Your task to perform on an android device: turn on showing notifications on the lock screen Image 0: 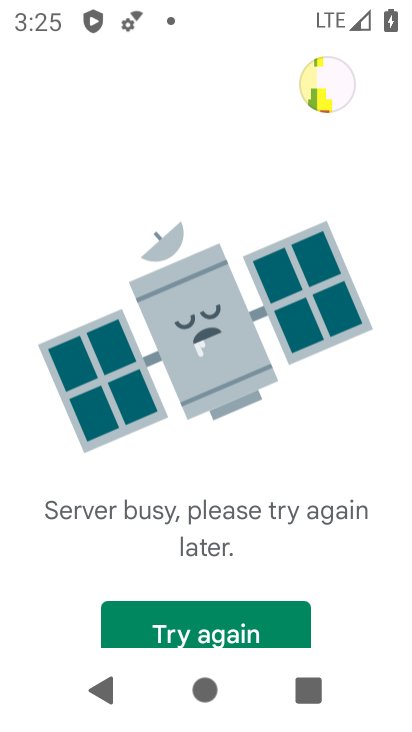
Step 0: press back button
Your task to perform on an android device: turn on showing notifications on the lock screen Image 1: 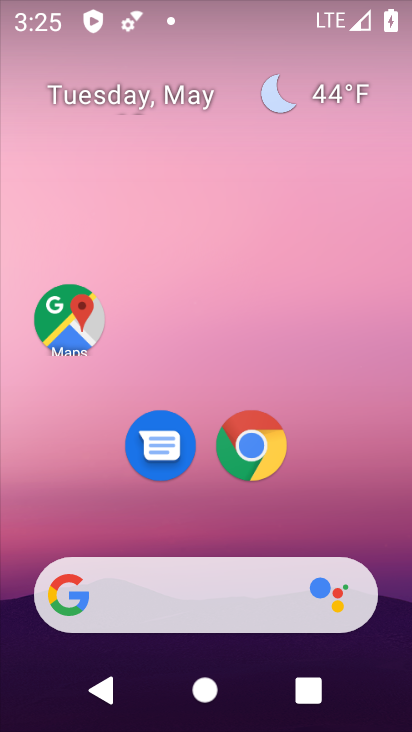
Step 1: drag from (183, 534) to (307, 79)
Your task to perform on an android device: turn on showing notifications on the lock screen Image 2: 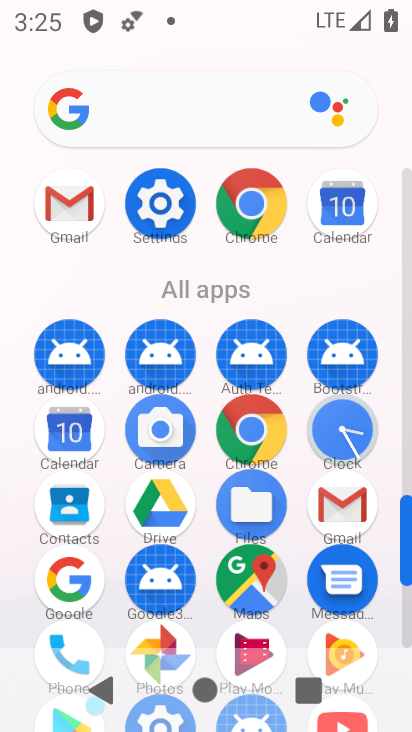
Step 2: click (169, 221)
Your task to perform on an android device: turn on showing notifications on the lock screen Image 3: 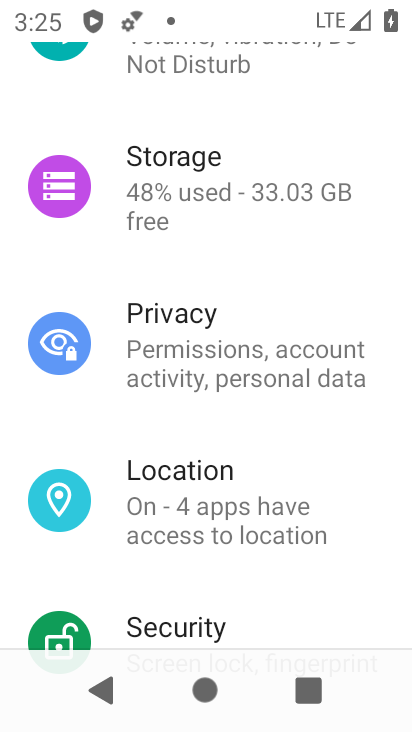
Step 3: drag from (275, 224) to (212, 729)
Your task to perform on an android device: turn on showing notifications on the lock screen Image 4: 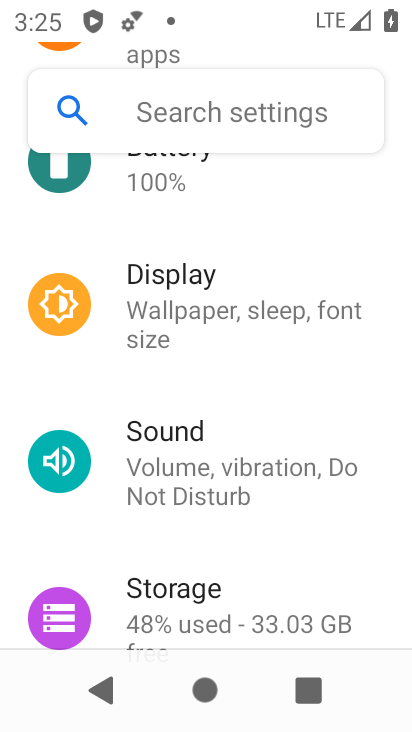
Step 4: drag from (234, 266) to (197, 686)
Your task to perform on an android device: turn on showing notifications on the lock screen Image 5: 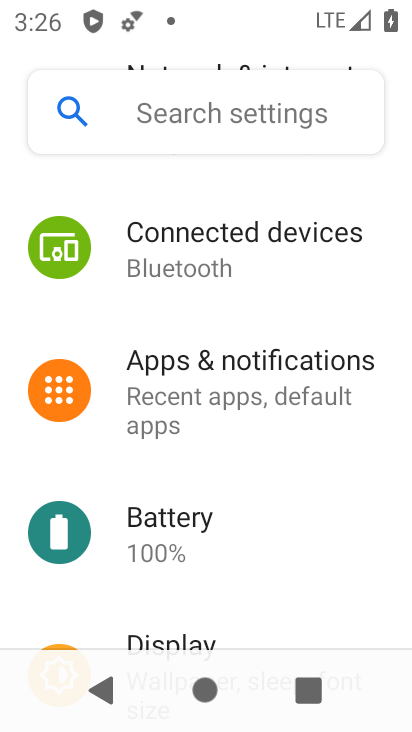
Step 5: click (237, 371)
Your task to perform on an android device: turn on showing notifications on the lock screen Image 6: 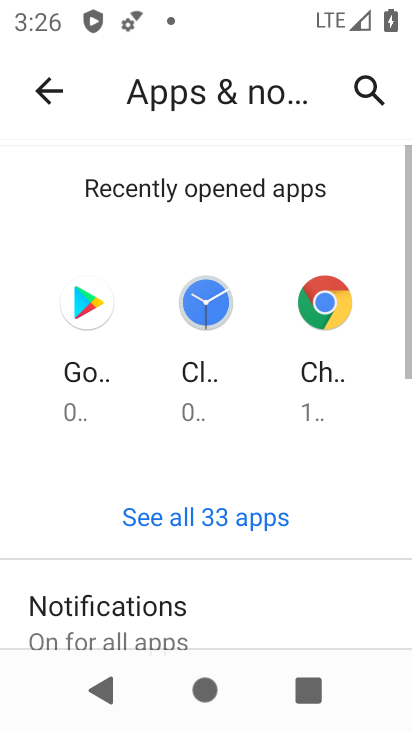
Step 6: drag from (145, 589) to (232, 291)
Your task to perform on an android device: turn on showing notifications on the lock screen Image 7: 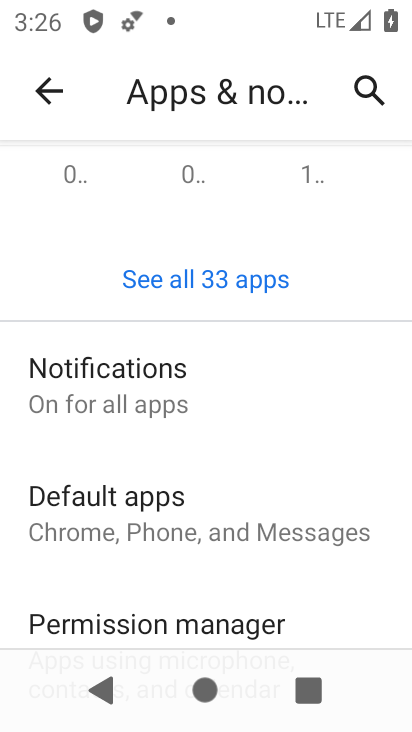
Step 7: click (134, 393)
Your task to perform on an android device: turn on showing notifications on the lock screen Image 8: 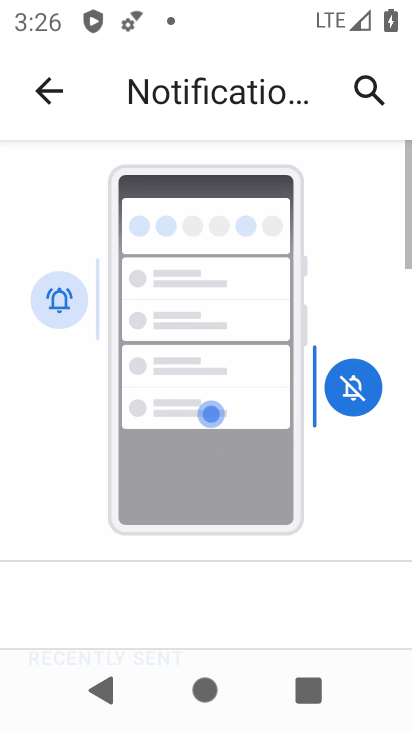
Step 8: drag from (190, 560) to (314, 73)
Your task to perform on an android device: turn on showing notifications on the lock screen Image 9: 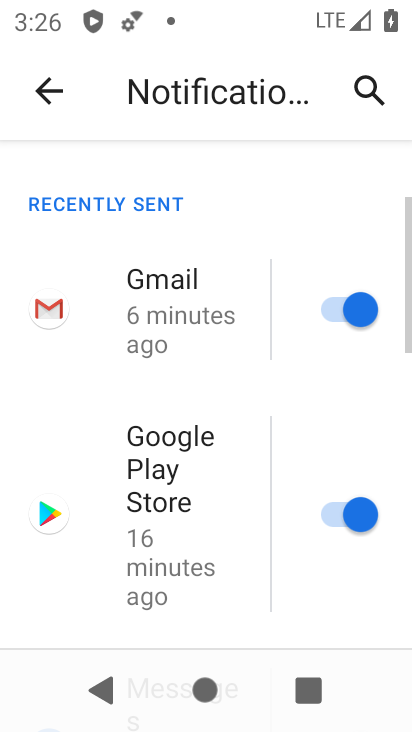
Step 9: drag from (165, 577) to (317, 3)
Your task to perform on an android device: turn on showing notifications on the lock screen Image 10: 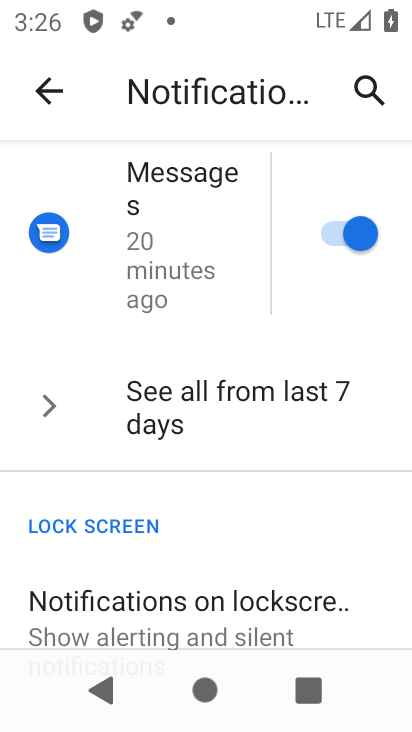
Step 10: click (165, 605)
Your task to perform on an android device: turn on showing notifications on the lock screen Image 11: 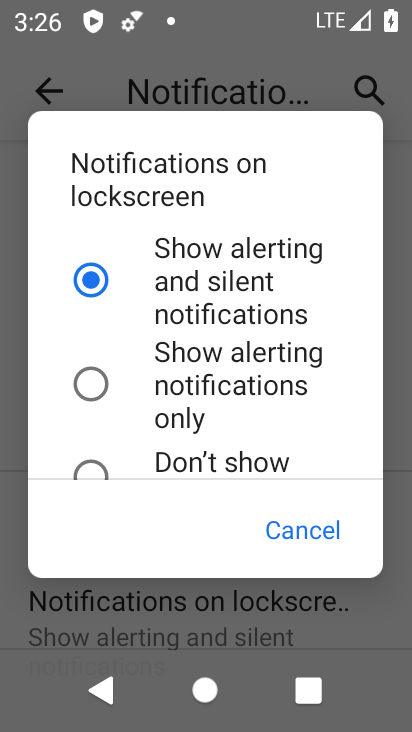
Step 11: click (86, 266)
Your task to perform on an android device: turn on showing notifications on the lock screen Image 12: 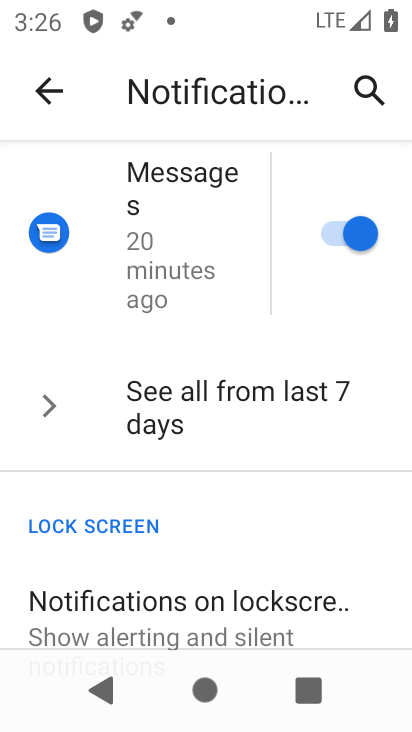
Step 12: task complete